Your task to perform on an android device: Turn off the flashlight Image 0: 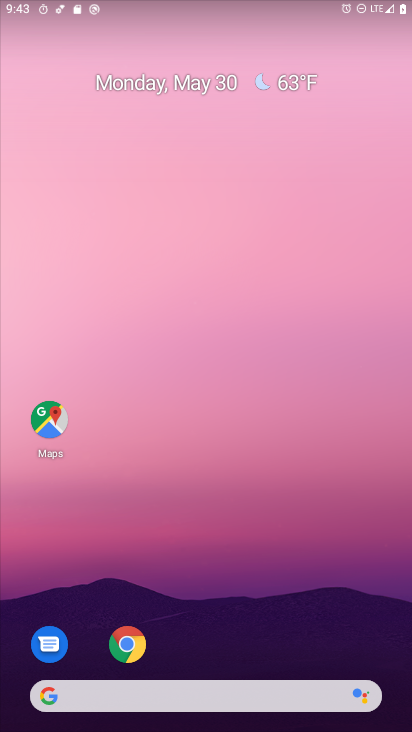
Step 0: drag from (201, 626) to (231, 15)
Your task to perform on an android device: Turn off the flashlight Image 1: 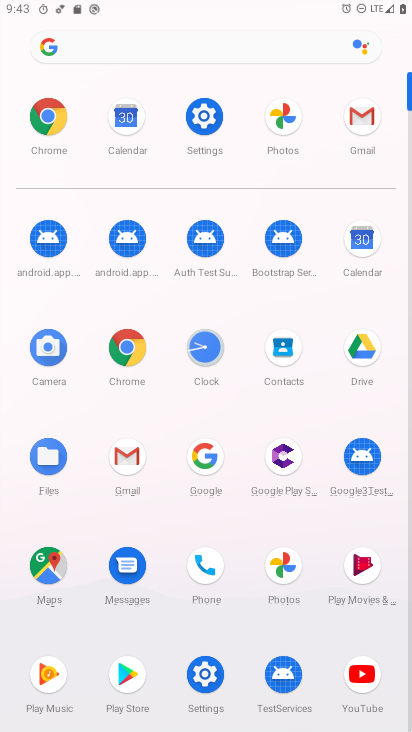
Step 1: click (204, 114)
Your task to perform on an android device: Turn off the flashlight Image 2: 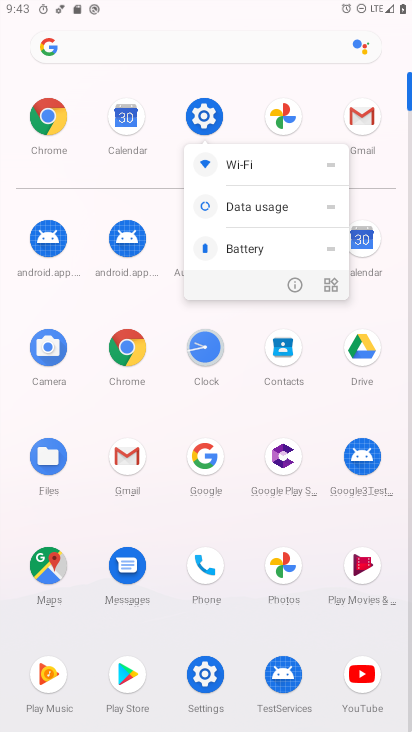
Step 2: click (208, 116)
Your task to perform on an android device: Turn off the flashlight Image 3: 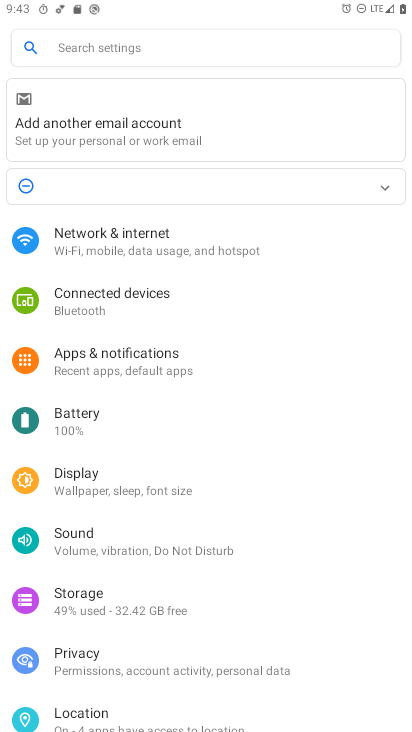
Step 3: click (153, 48)
Your task to perform on an android device: Turn off the flashlight Image 4: 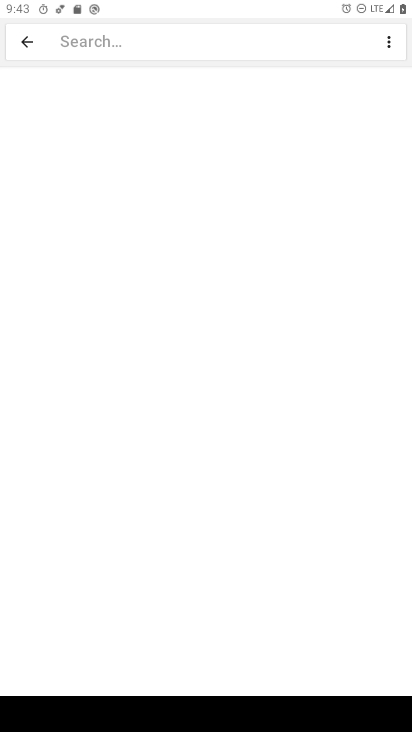
Step 4: type "flash"
Your task to perform on an android device: Turn off the flashlight Image 5: 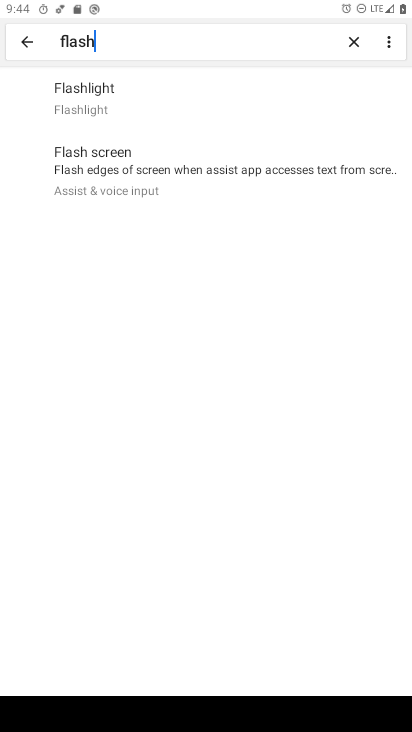
Step 5: task complete